Your task to perform on an android device: refresh tabs in the chrome app Image 0: 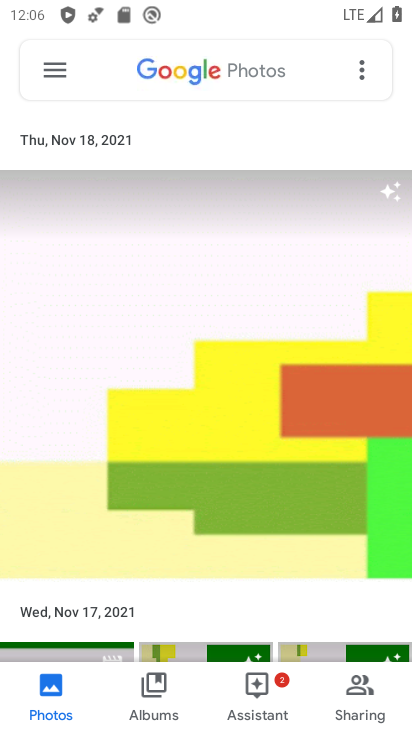
Step 0: press home button
Your task to perform on an android device: refresh tabs in the chrome app Image 1: 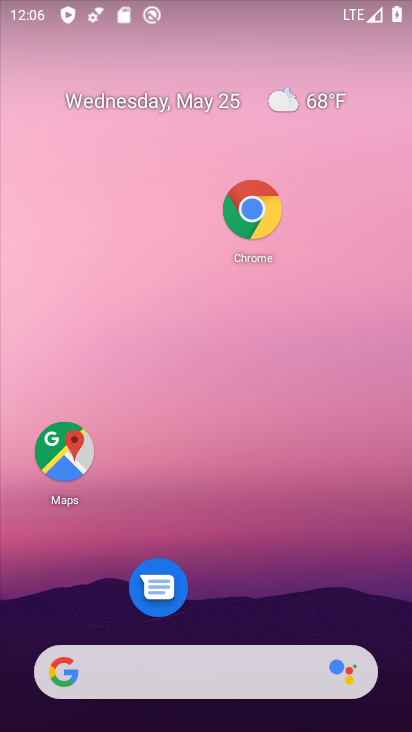
Step 1: click (250, 204)
Your task to perform on an android device: refresh tabs in the chrome app Image 2: 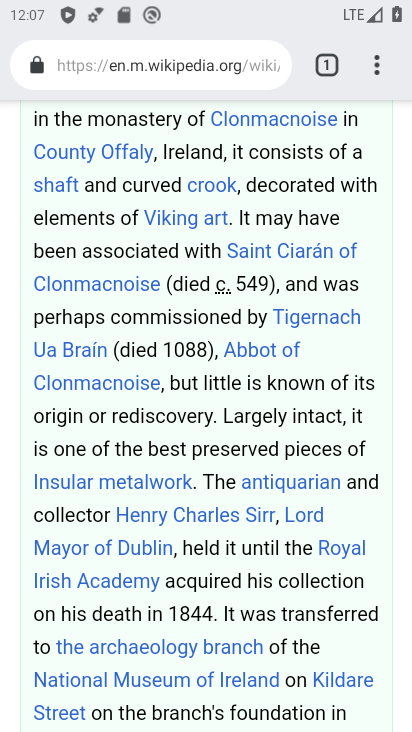
Step 2: click (381, 66)
Your task to perform on an android device: refresh tabs in the chrome app Image 3: 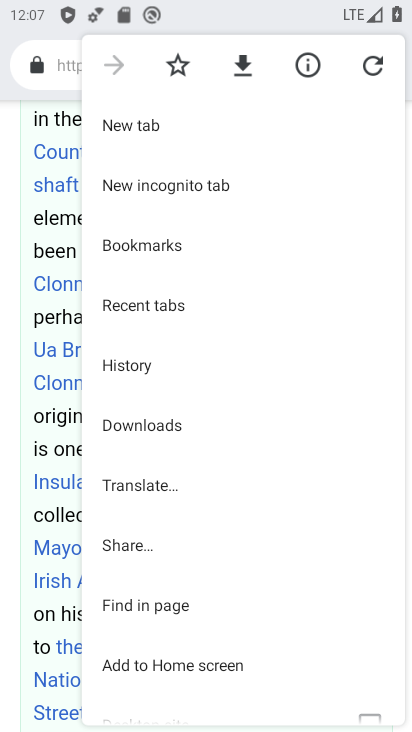
Step 3: click (376, 69)
Your task to perform on an android device: refresh tabs in the chrome app Image 4: 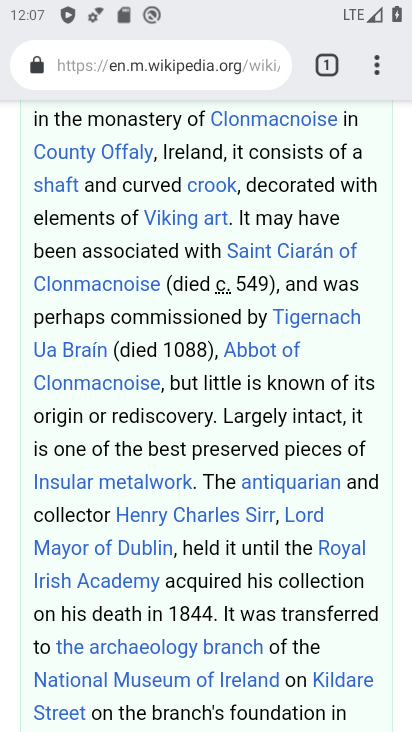
Step 4: task complete